Your task to perform on an android device: Go to ESPN.com Image 0: 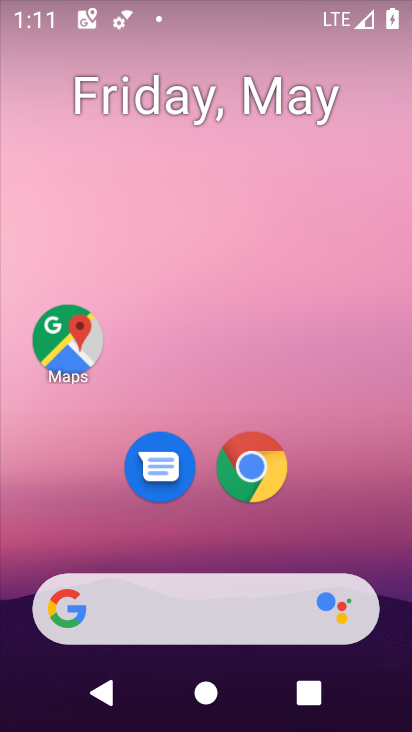
Step 0: click (247, 465)
Your task to perform on an android device: Go to ESPN.com Image 1: 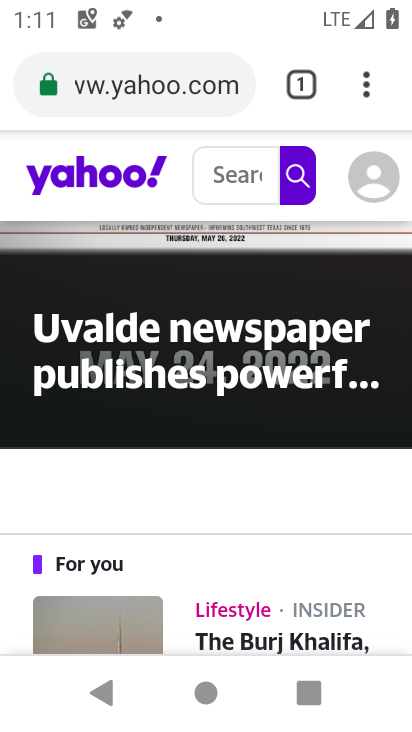
Step 1: click (173, 89)
Your task to perform on an android device: Go to ESPN.com Image 2: 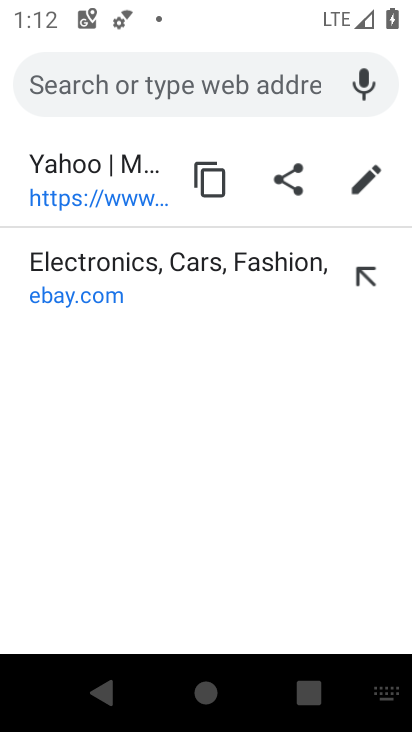
Step 2: type "espn"
Your task to perform on an android device: Go to ESPN.com Image 3: 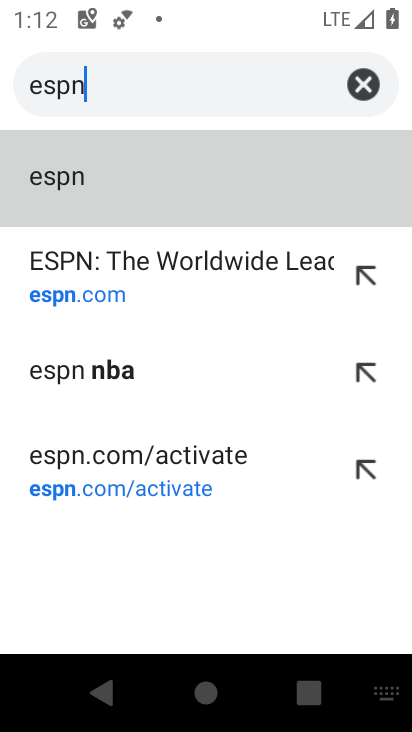
Step 3: click (82, 289)
Your task to perform on an android device: Go to ESPN.com Image 4: 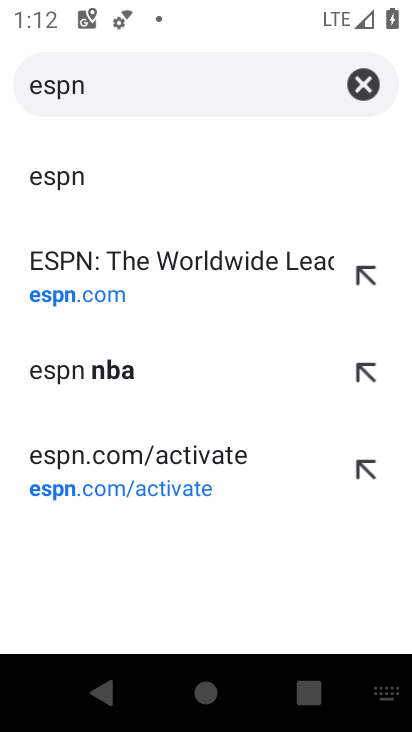
Step 4: click (82, 288)
Your task to perform on an android device: Go to ESPN.com Image 5: 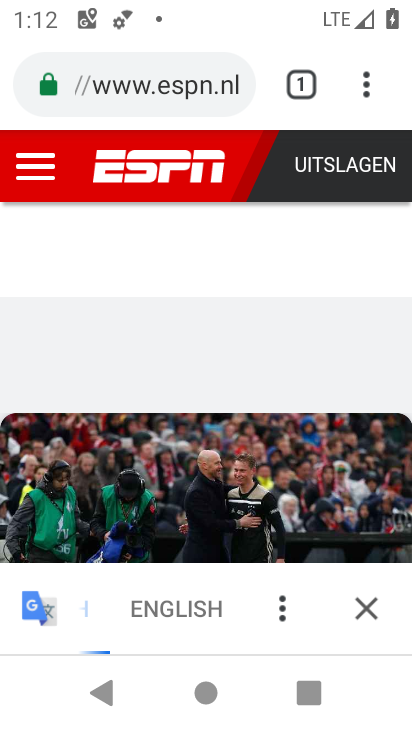
Step 5: drag from (200, 521) to (296, 116)
Your task to perform on an android device: Go to ESPN.com Image 6: 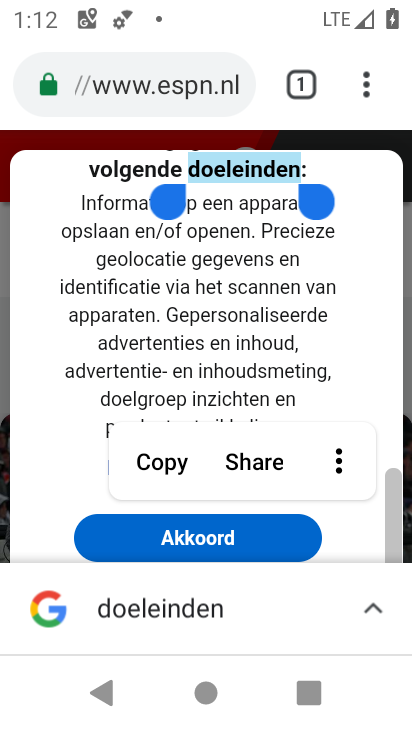
Step 6: click (242, 291)
Your task to perform on an android device: Go to ESPN.com Image 7: 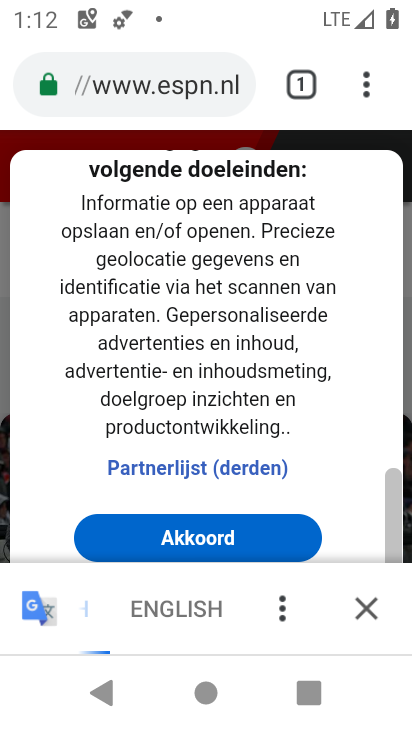
Step 7: task complete